Your task to perform on an android device: Open network settings Image 0: 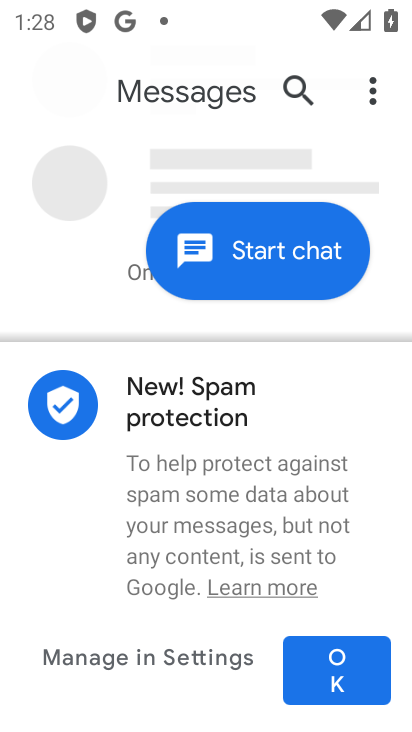
Step 0: press home button
Your task to perform on an android device: Open network settings Image 1: 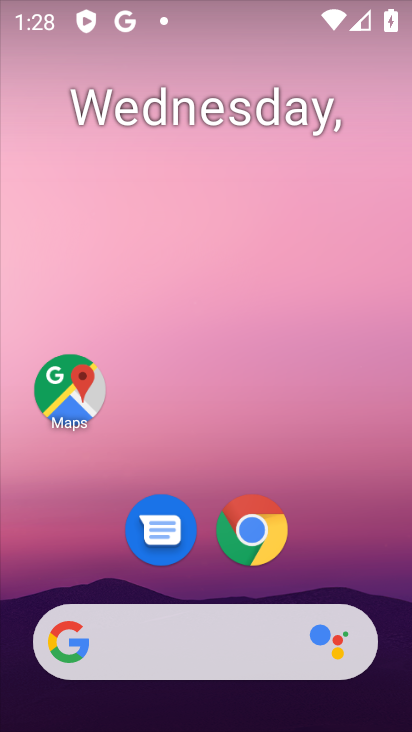
Step 1: drag from (57, 560) to (255, 241)
Your task to perform on an android device: Open network settings Image 2: 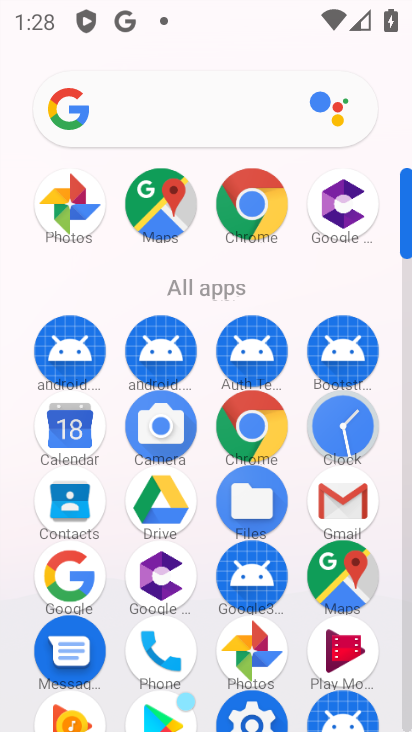
Step 2: click (233, 706)
Your task to perform on an android device: Open network settings Image 3: 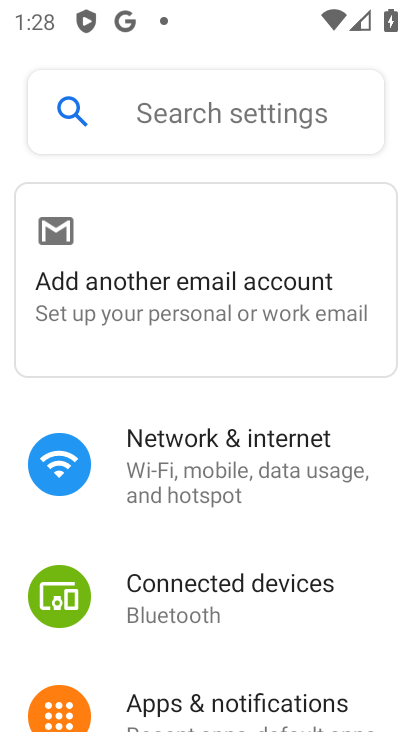
Step 3: click (165, 444)
Your task to perform on an android device: Open network settings Image 4: 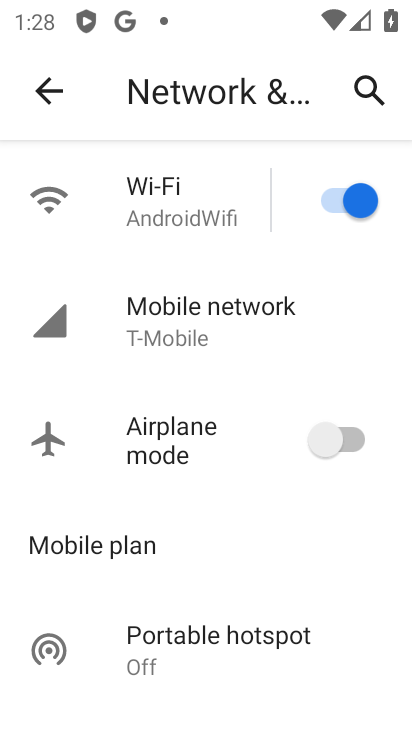
Step 4: click (214, 323)
Your task to perform on an android device: Open network settings Image 5: 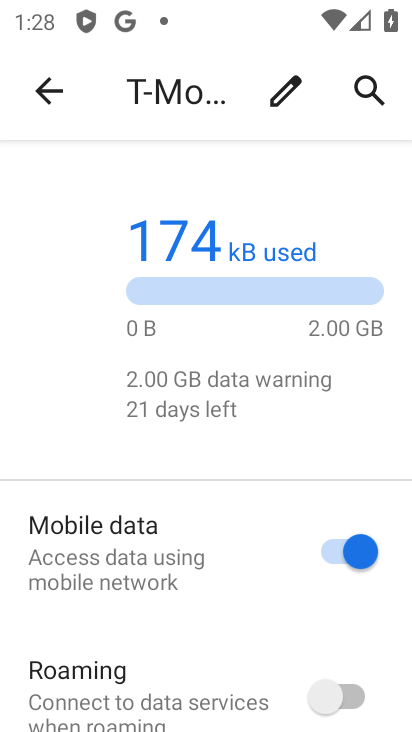
Step 5: task complete